Your task to perform on an android device: turn off sleep mode Image 0: 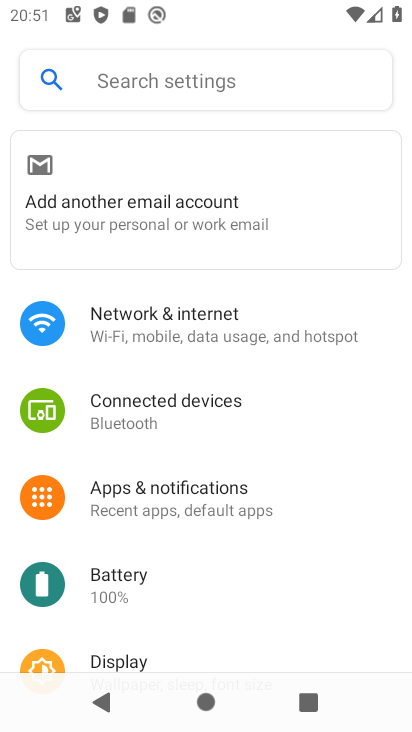
Step 0: drag from (243, 583) to (283, 306)
Your task to perform on an android device: turn off sleep mode Image 1: 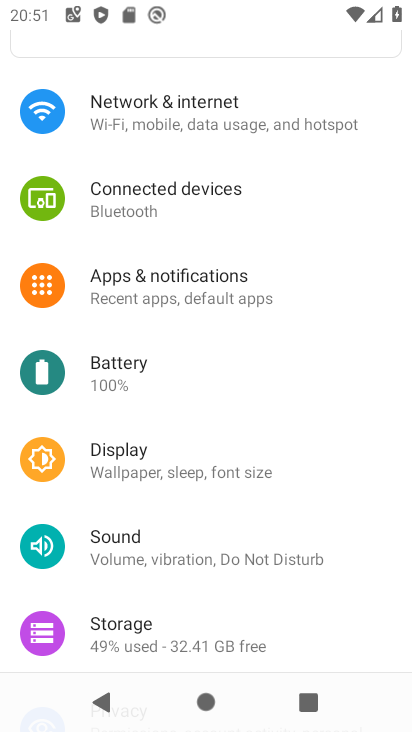
Step 1: click (139, 462)
Your task to perform on an android device: turn off sleep mode Image 2: 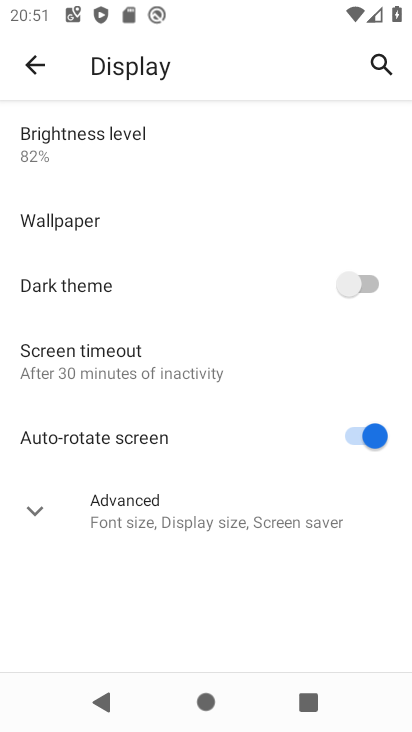
Step 2: click (37, 517)
Your task to perform on an android device: turn off sleep mode Image 3: 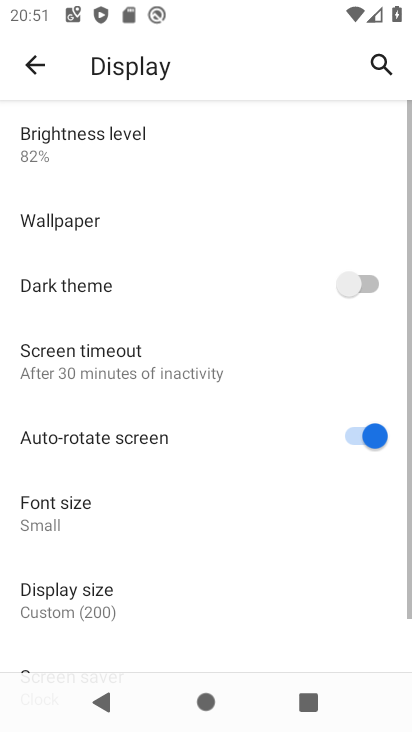
Step 3: task complete